Your task to perform on an android device: allow cookies in the chrome app Image 0: 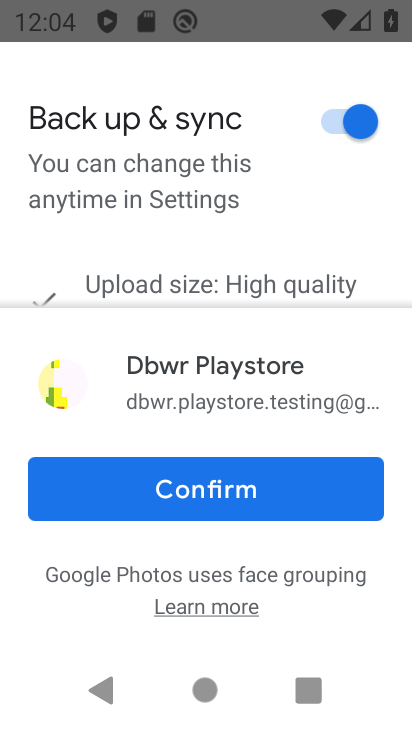
Step 0: click (206, 498)
Your task to perform on an android device: allow cookies in the chrome app Image 1: 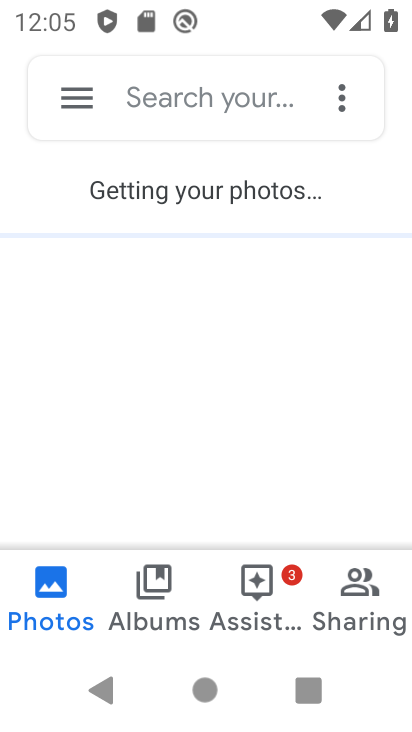
Step 1: drag from (188, 516) to (244, 334)
Your task to perform on an android device: allow cookies in the chrome app Image 2: 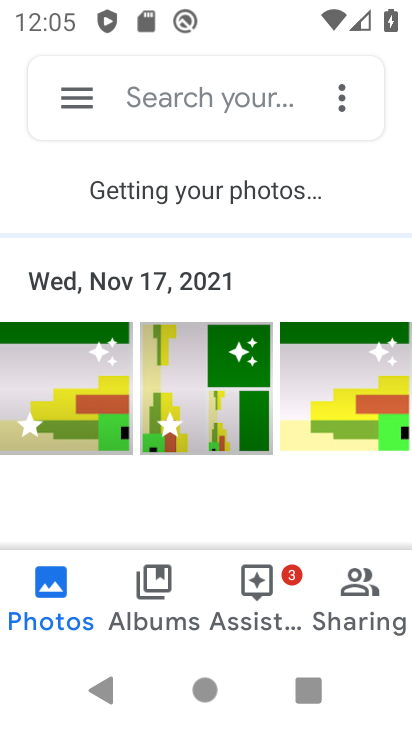
Step 2: press home button
Your task to perform on an android device: allow cookies in the chrome app Image 3: 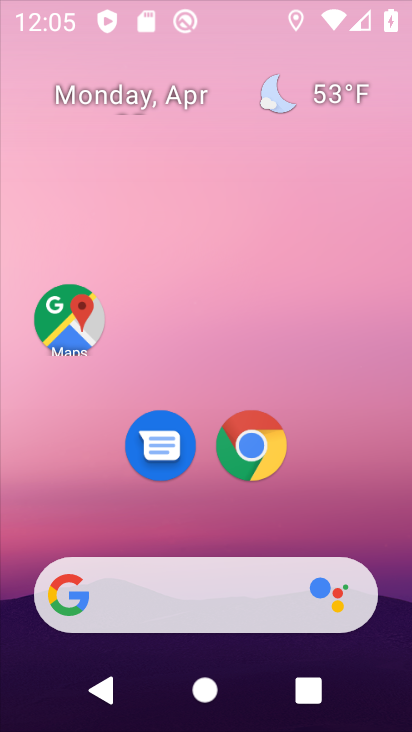
Step 3: click (237, 458)
Your task to perform on an android device: allow cookies in the chrome app Image 4: 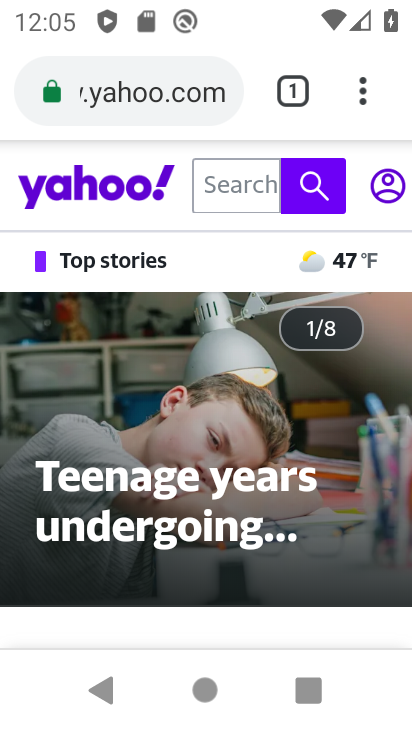
Step 4: click (364, 95)
Your task to perform on an android device: allow cookies in the chrome app Image 5: 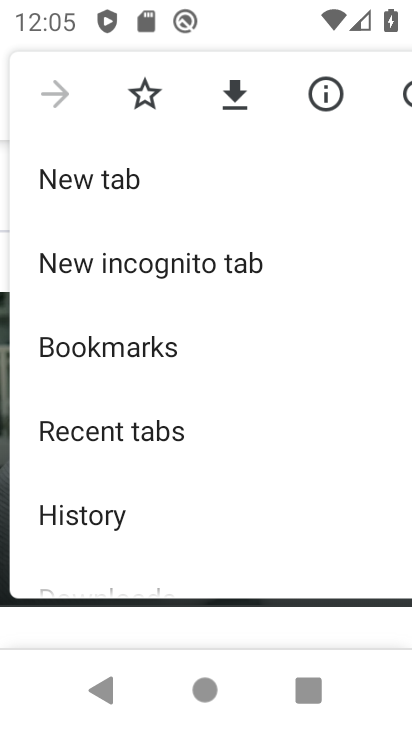
Step 5: drag from (220, 529) to (195, 199)
Your task to perform on an android device: allow cookies in the chrome app Image 6: 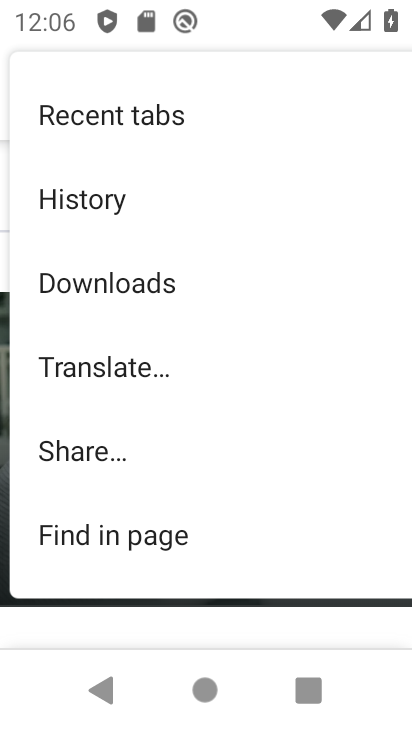
Step 6: drag from (220, 476) to (228, 203)
Your task to perform on an android device: allow cookies in the chrome app Image 7: 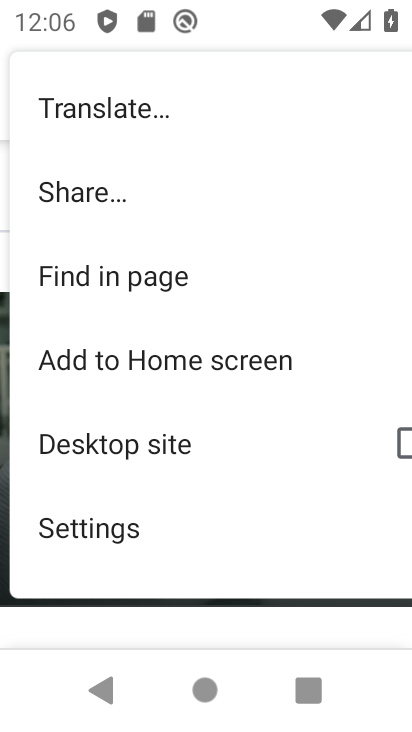
Step 7: drag from (253, 543) to (228, 256)
Your task to perform on an android device: allow cookies in the chrome app Image 8: 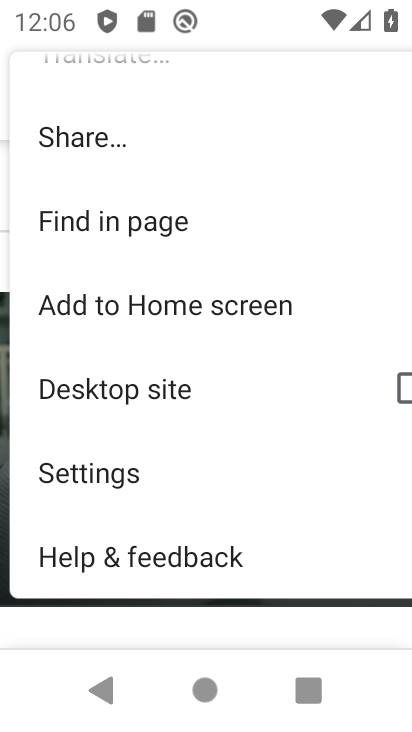
Step 8: click (142, 478)
Your task to perform on an android device: allow cookies in the chrome app Image 9: 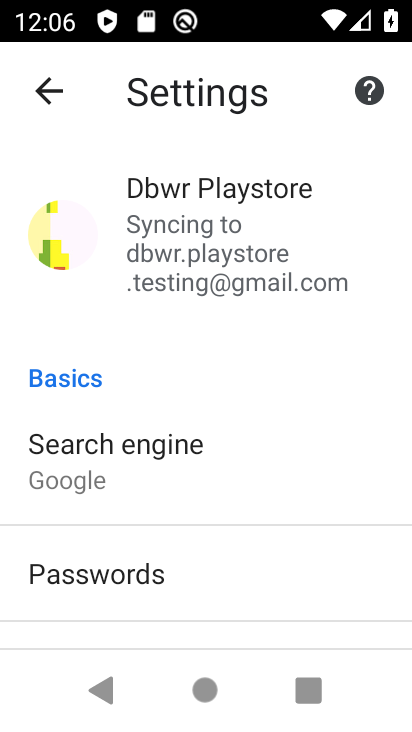
Step 9: drag from (179, 424) to (155, 52)
Your task to perform on an android device: allow cookies in the chrome app Image 10: 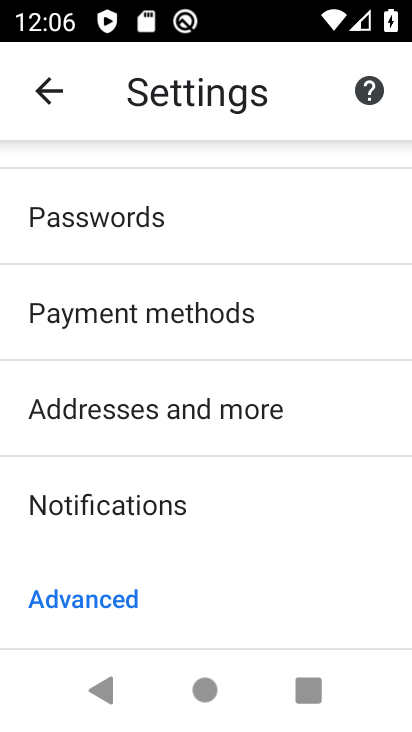
Step 10: drag from (194, 619) to (172, 202)
Your task to perform on an android device: allow cookies in the chrome app Image 11: 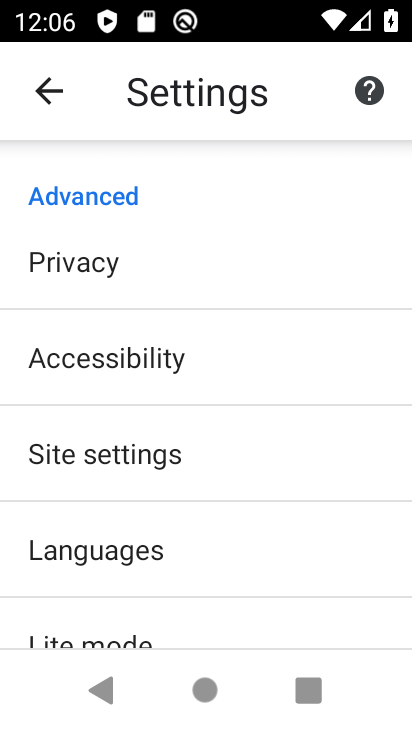
Step 11: click (142, 468)
Your task to perform on an android device: allow cookies in the chrome app Image 12: 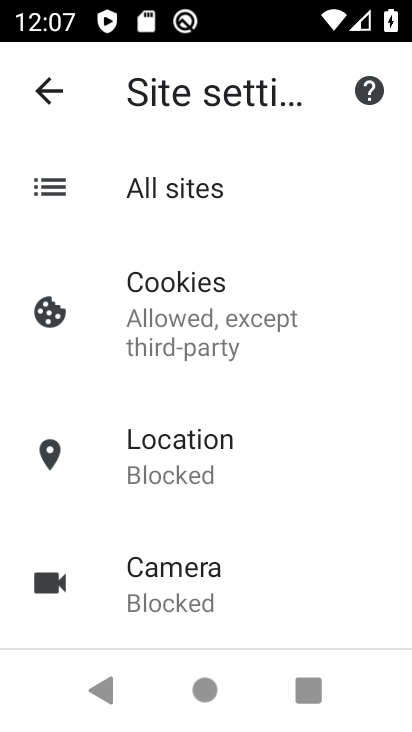
Step 12: drag from (259, 597) to (198, 349)
Your task to perform on an android device: allow cookies in the chrome app Image 13: 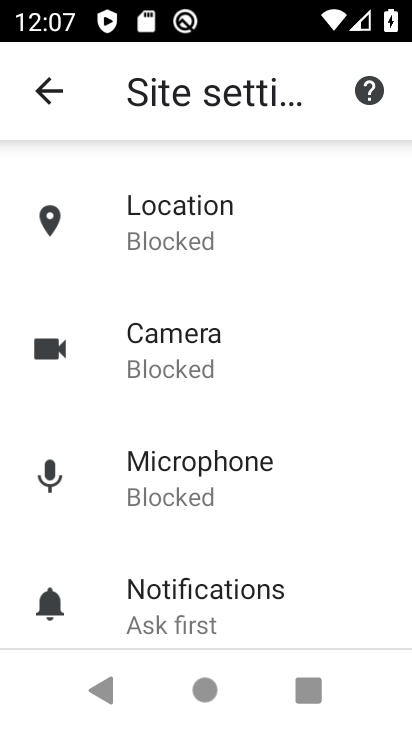
Step 13: drag from (234, 596) to (182, 677)
Your task to perform on an android device: allow cookies in the chrome app Image 14: 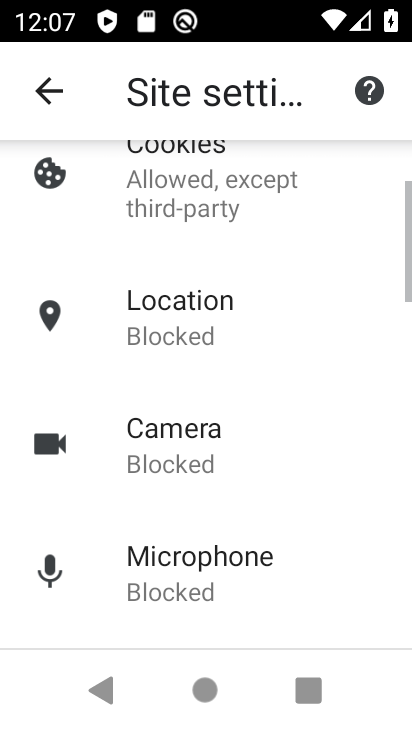
Step 14: drag from (171, 193) to (165, 504)
Your task to perform on an android device: allow cookies in the chrome app Image 15: 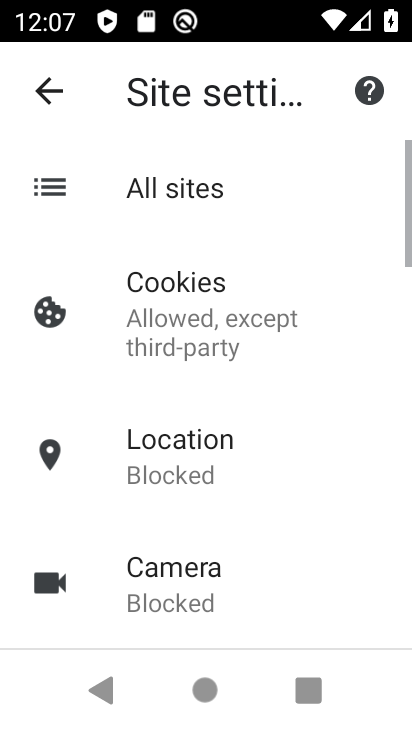
Step 15: click (179, 339)
Your task to perform on an android device: allow cookies in the chrome app Image 16: 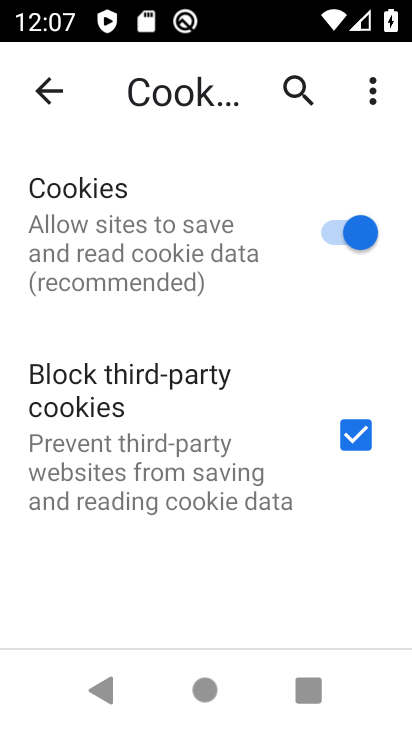
Step 16: click (364, 435)
Your task to perform on an android device: allow cookies in the chrome app Image 17: 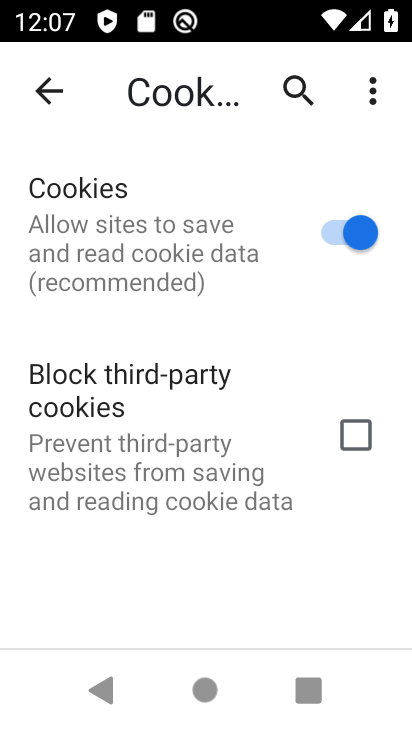
Step 17: task complete